Your task to perform on an android device: turn on showing notifications on the lock screen Image 0: 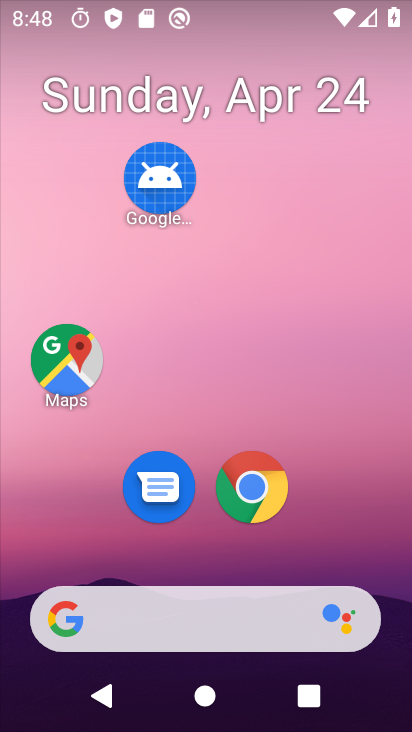
Step 0: drag from (345, 538) to (333, 142)
Your task to perform on an android device: turn on showing notifications on the lock screen Image 1: 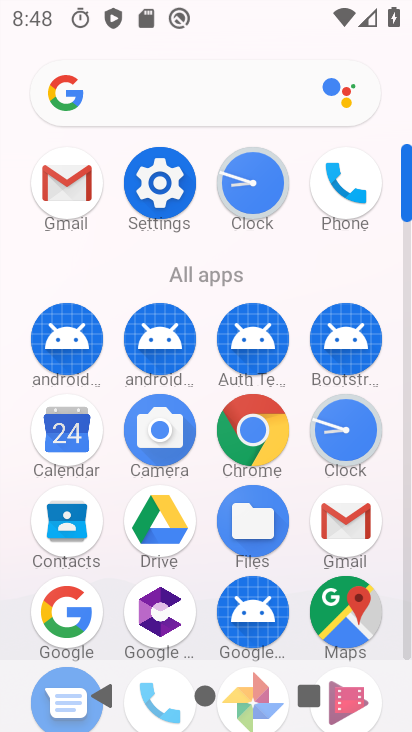
Step 1: click (171, 185)
Your task to perform on an android device: turn on showing notifications on the lock screen Image 2: 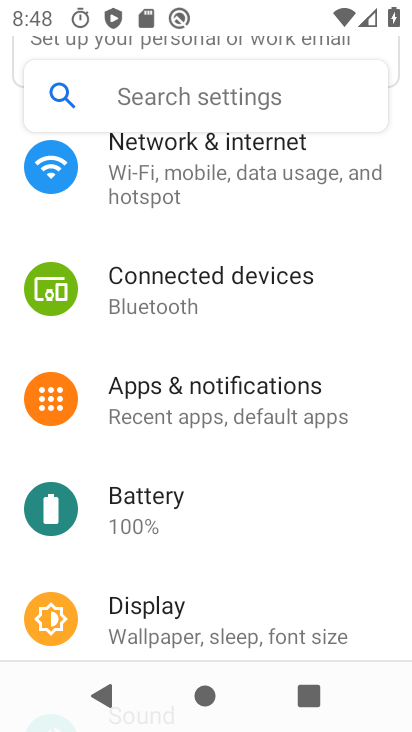
Step 2: click (164, 400)
Your task to perform on an android device: turn on showing notifications on the lock screen Image 3: 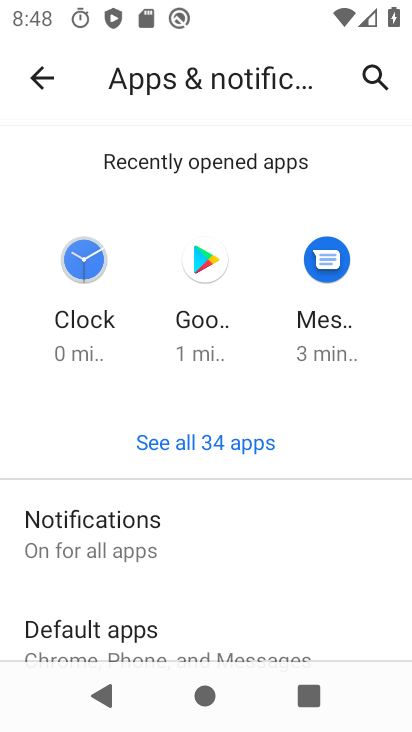
Step 3: drag from (346, 605) to (317, 221)
Your task to perform on an android device: turn on showing notifications on the lock screen Image 4: 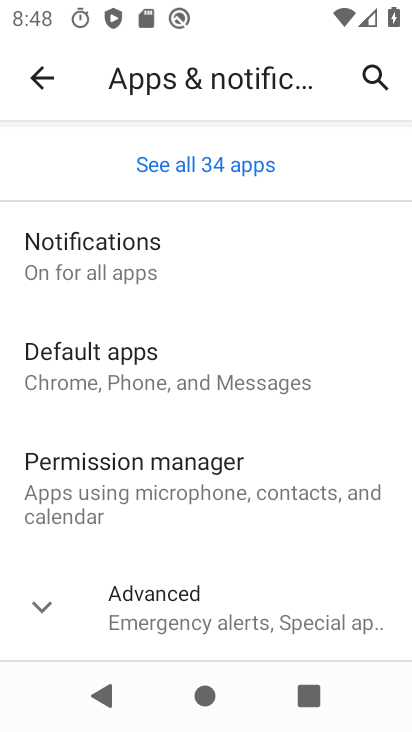
Step 4: click (115, 271)
Your task to perform on an android device: turn on showing notifications on the lock screen Image 5: 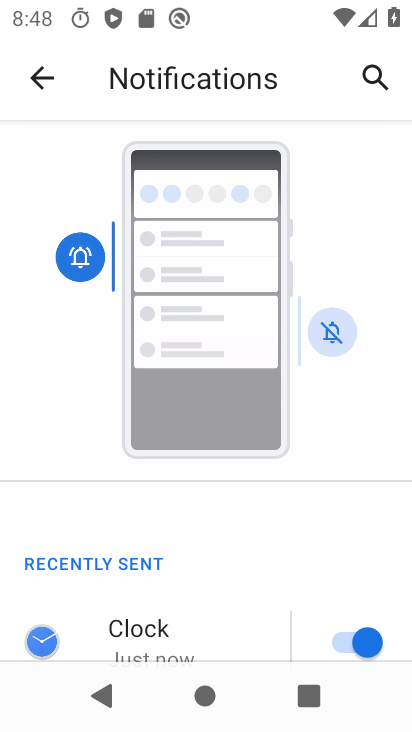
Step 5: drag from (262, 518) to (262, 191)
Your task to perform on an android device: turn on showing notifications on the lock screen Image 6: 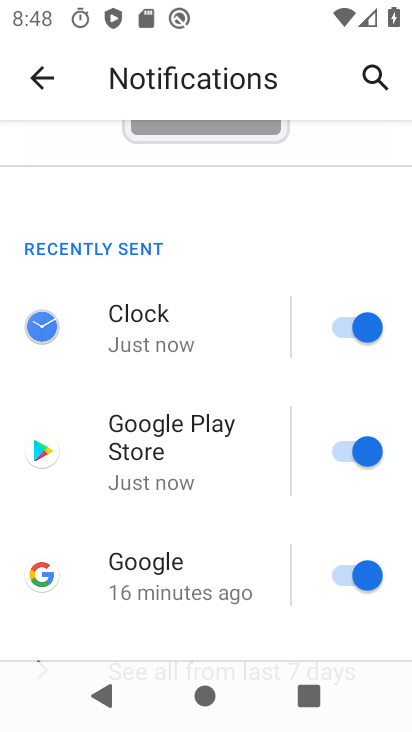
Step 6: drag from (261, 568) to (261, 246)
Your task to perform on an android device: turn on showing notifications on the lock screen Image 7: 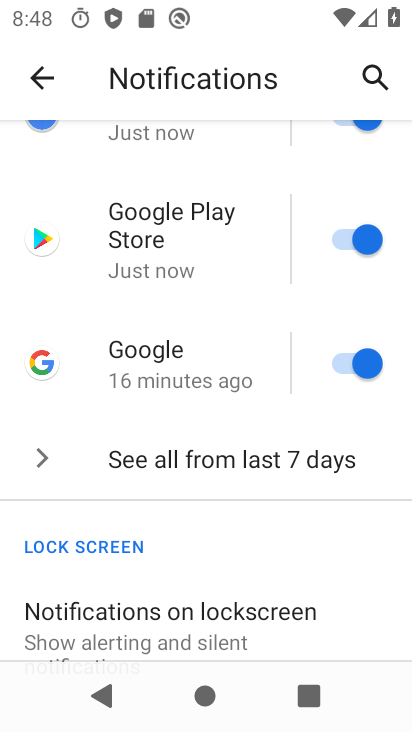
Step 7: click (155, 635)
Your task to perform on an android device: turn on showing notifications on the lock screen Image 8: 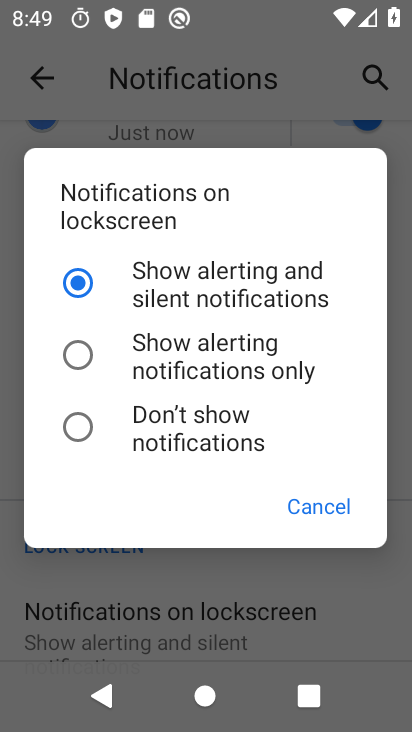
Step 8: task complete